Your task to perform on an android device: choose inbox layout in the gmail app Image 0: 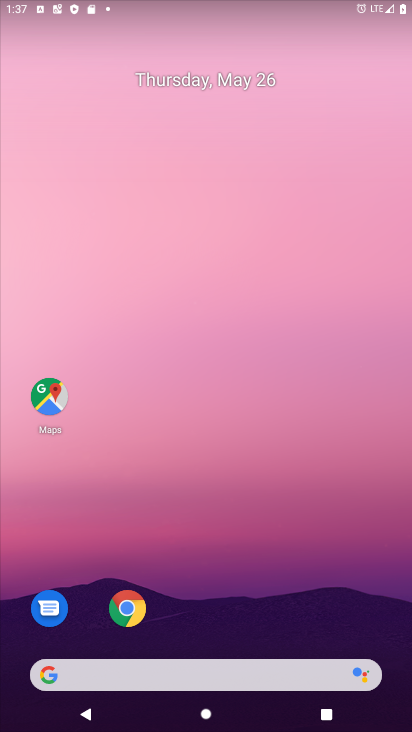
Step 0: drag from (259, 639) to (293, 162)
Your task to perform on an android device: choose inbox layout in the gmail app Image 1: 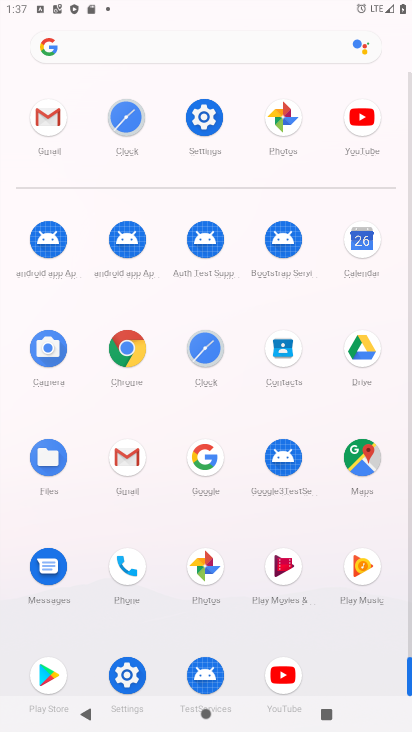
Step 1: click (124, 455)
Your task to perform on an android device: choose inbox layout in the gmail app Image 2: 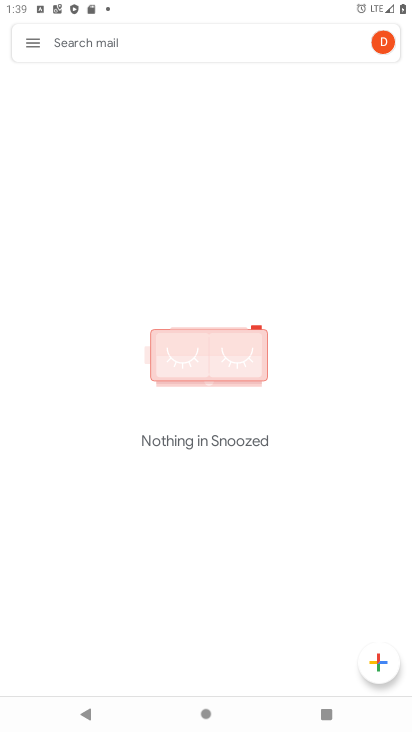
Step 2: click (33, 41)
Your task to perform on an android device: choose inbox layout in the gmail app Image 3: 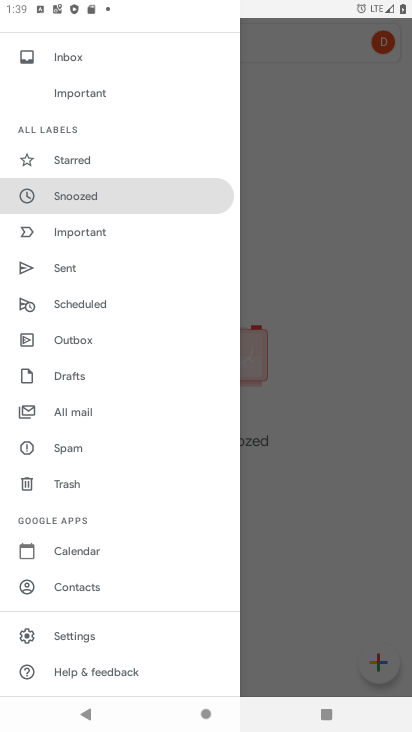
Step 3: click (74, 628)
Your task to perform on an android device: choose inbox layout in the gmail app Image 4: 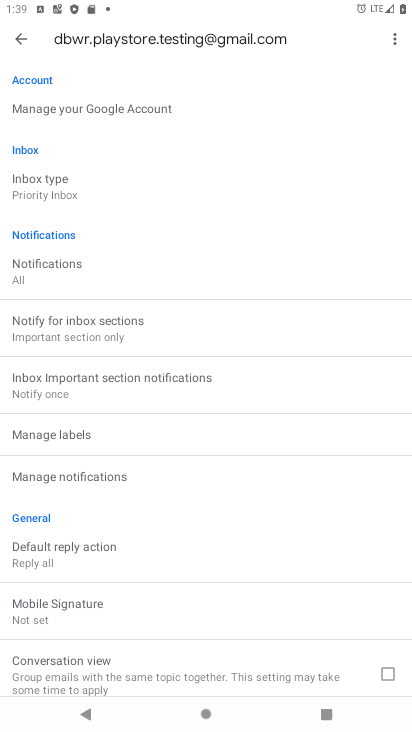
Step 4: click (39, 173)
Your task to perform on an android device: choose inbox layout in the gmail app Image 5: 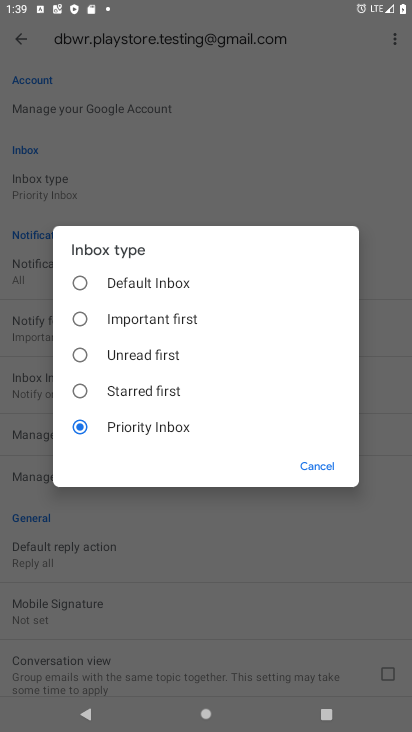
Step 5: click (82, 281)
Your task to perform on an android device: choose inbox layout in the gmail app Image 6: 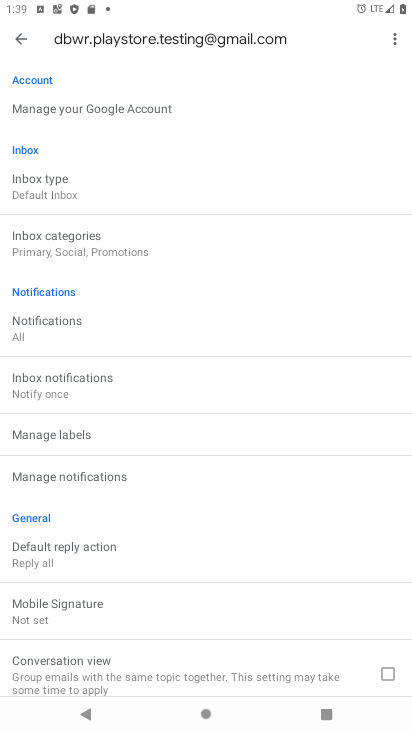
Step 6: task complete